Your task to perform on an android device: Open the Play Movies app and select the watchlist tab. Image 0: 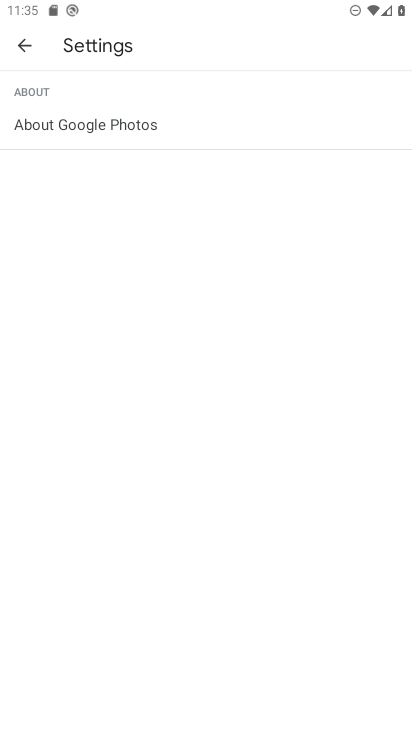
Step 0: press home button
Your task to perform on an android device: Open the Play Movies app and select the watchlist tab. Image 1: 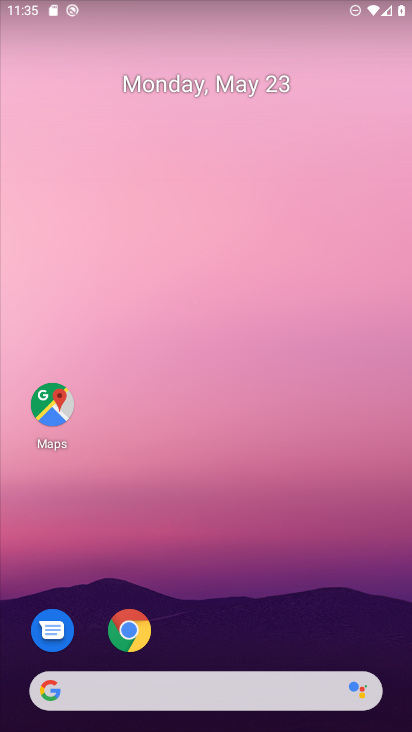
Step 1: drag from (249, 649) to (286, 89)
Your task to perform on an android device: Open the Play Movies app and select the watchlist tab. Image 2: 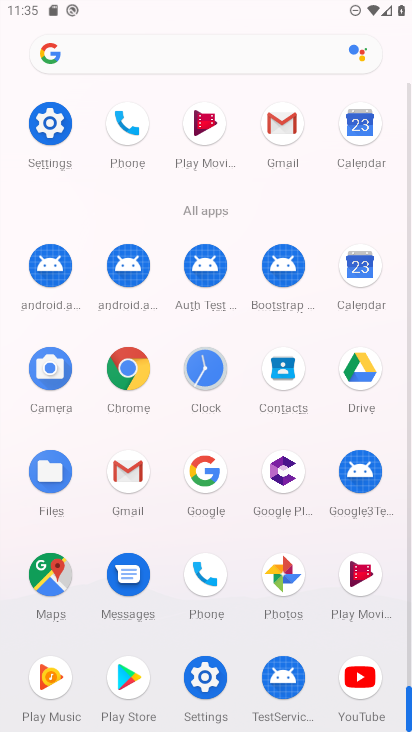
Step 2: click (370, 580)
Your task to perform on an android device: Open the Play Movies app and select the watchlist tab. Image 3: 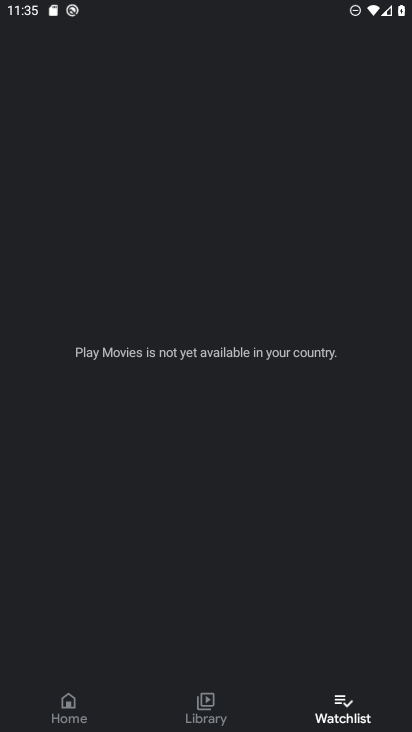
Step 3: click (338, 724)
Your task to perform on an android device: Open the Play Movies app and select the watchlist tab. Image 4: 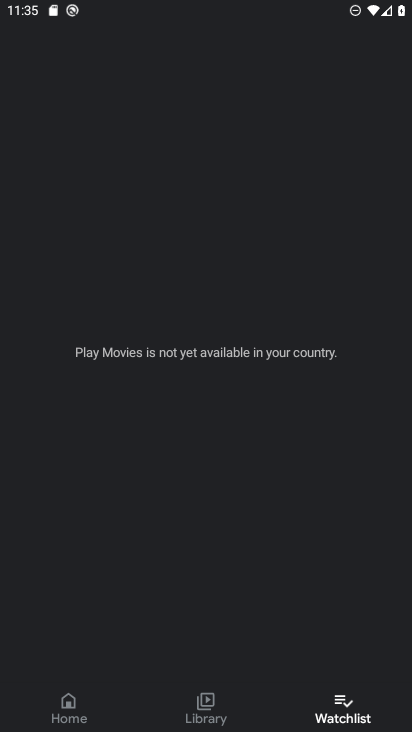
Step 4: task complete